Your task to perform on an android device: empty trash in the gmail app Image 0: 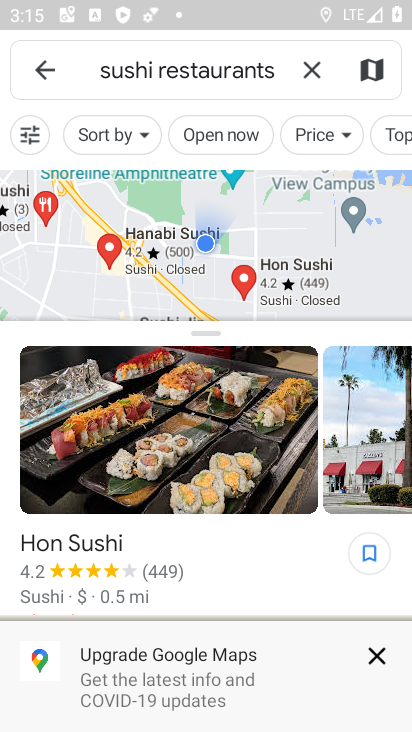
Step 0: press back button
Your task to perform on an android device: empty trash in the gmail app Image 1: 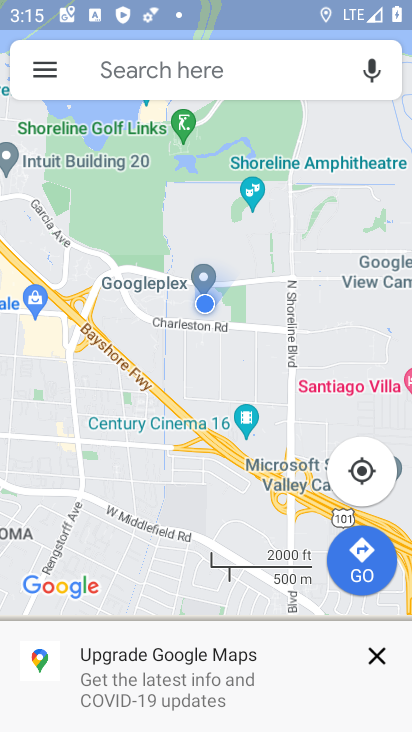
Step 1: press back button
Your task to perform on an android device: empty trash in the gmail app Image 2: 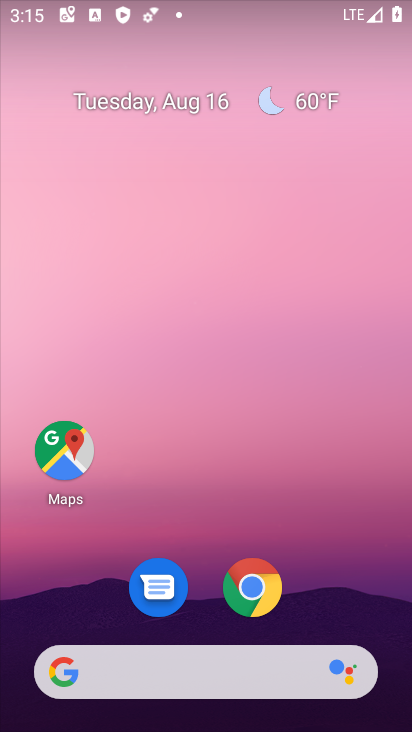
Step 2: drag from (28, 626) to (187, 13)
Your task to perform on an android device: empty trash in the gmail app Image 3: 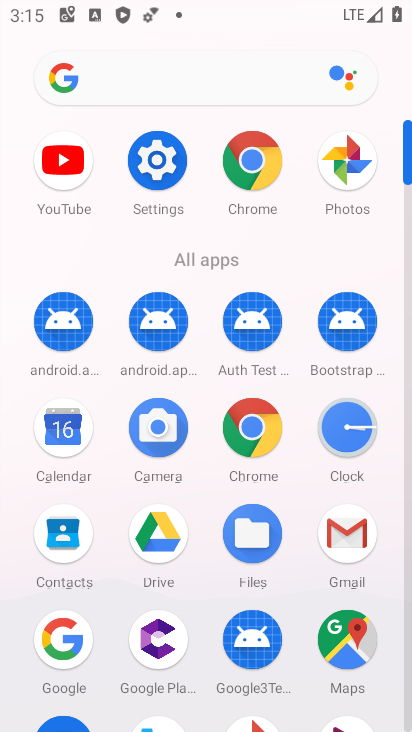
Step 3: click (342, 537)
Your task to perform on an android device: empty trash in the gmail app Image 4: 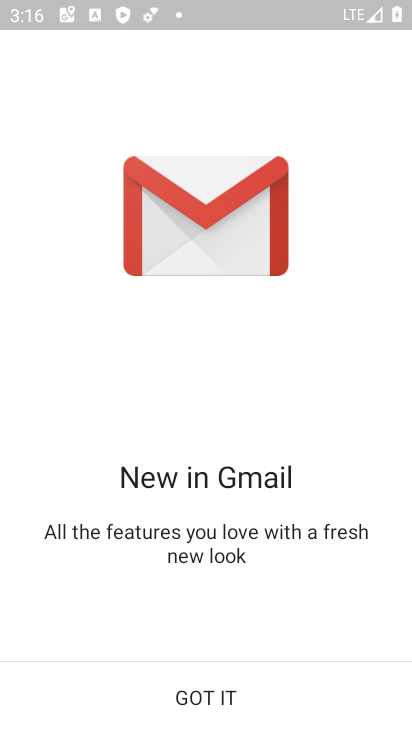
Step 4: click (200, 706)
Your task to perform on an android device: empty trash in the gmail app Image 5: 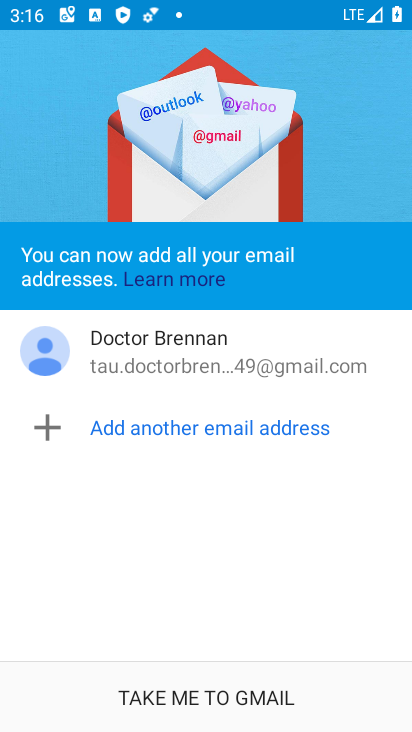
Step 5: click (200, 706)
Your task to perform on an android device: empty trash in the gmail app Image 6: 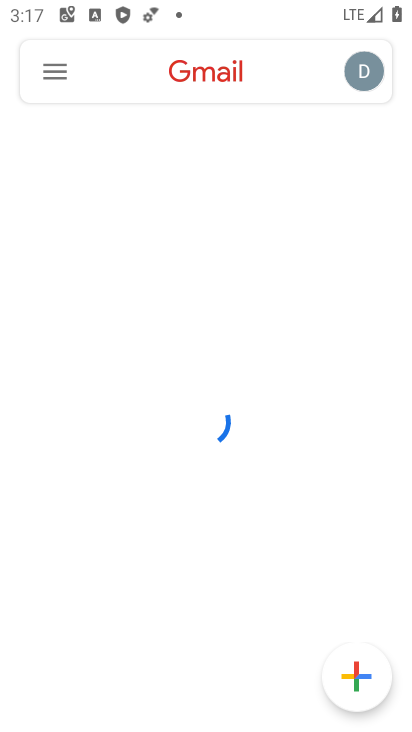
Step 6: click (48, 75)
Your task to perform on an android device: empty trash in the gmail app Image 7: 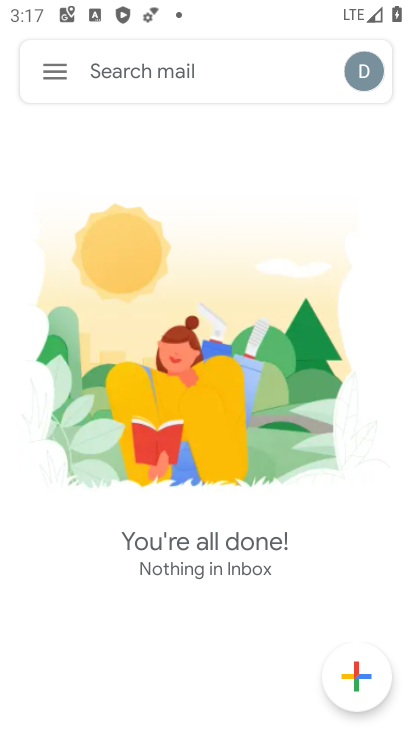
Step 7: click (54, 68)
Your task to perform on an android device: empty trash in the gmail app Image 8: 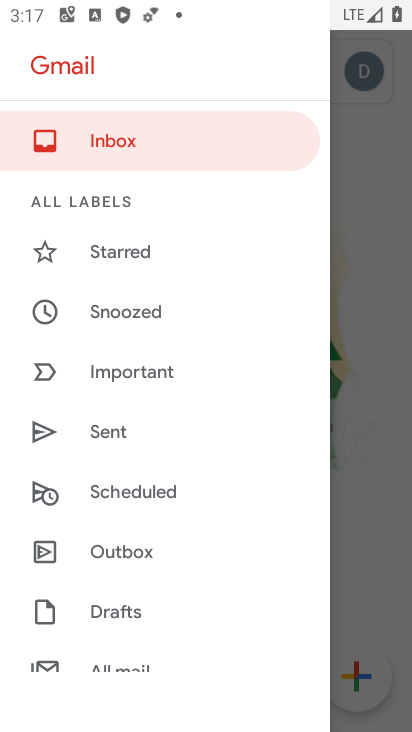
Step 8: drag from (131, 619) to (216, 167)
Your task to perform on an android device: empty trash in the gmail app Image 9: 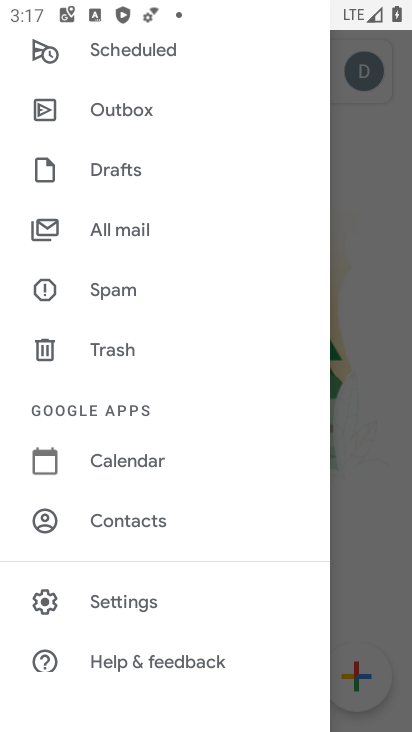
Step 9: click (147, 350)
Your task to perform on an android device: empty trash in the gmail app Image 10: 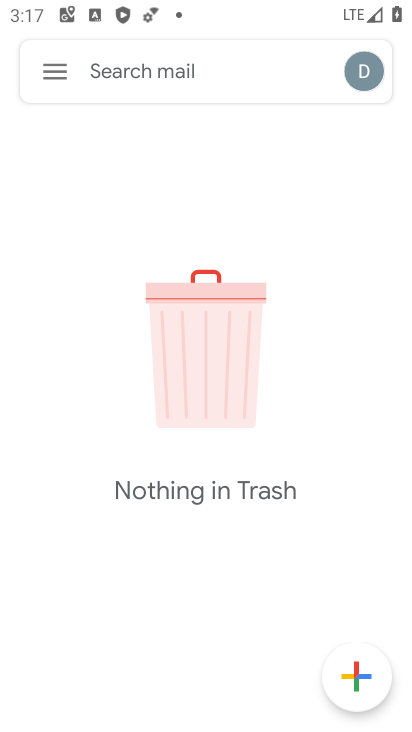
Step 10: task complete